Your task to perform on an android device: refresh tabs in the chrome app Image 0: 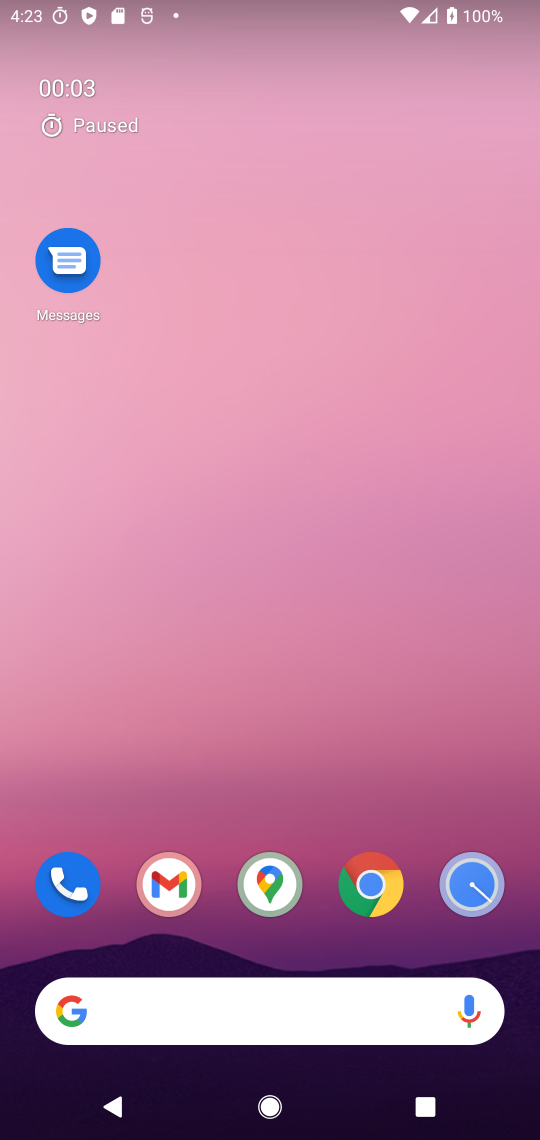
Step 0: click (364, 912)
Your task to perform on an android device: refresh tabs in the chrome app Image 1: 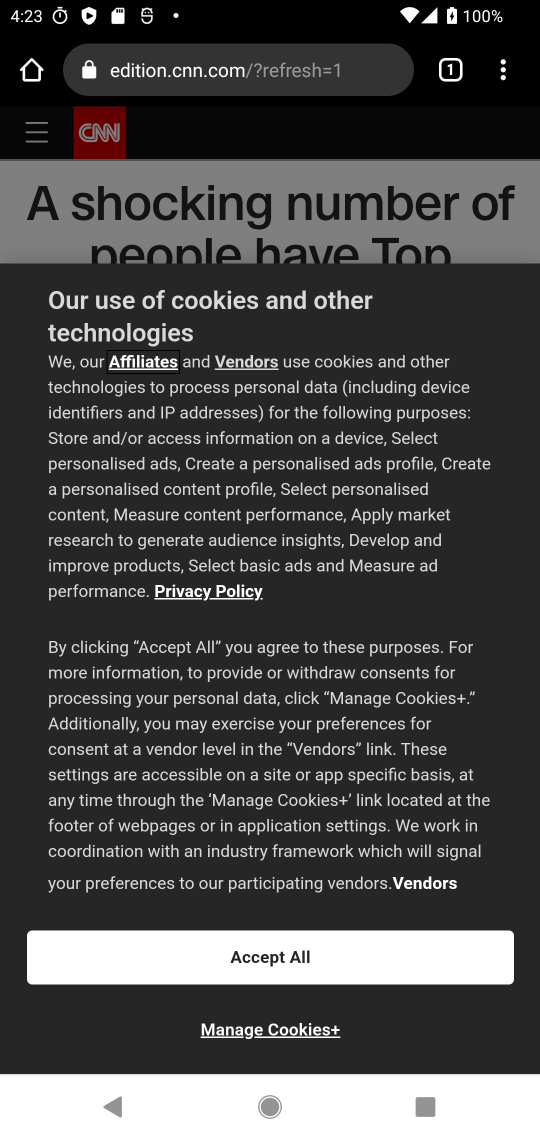
Step 1: click (503, 73)
Your task to perform on an android device: refresh tabs in the chrome app Image 2: 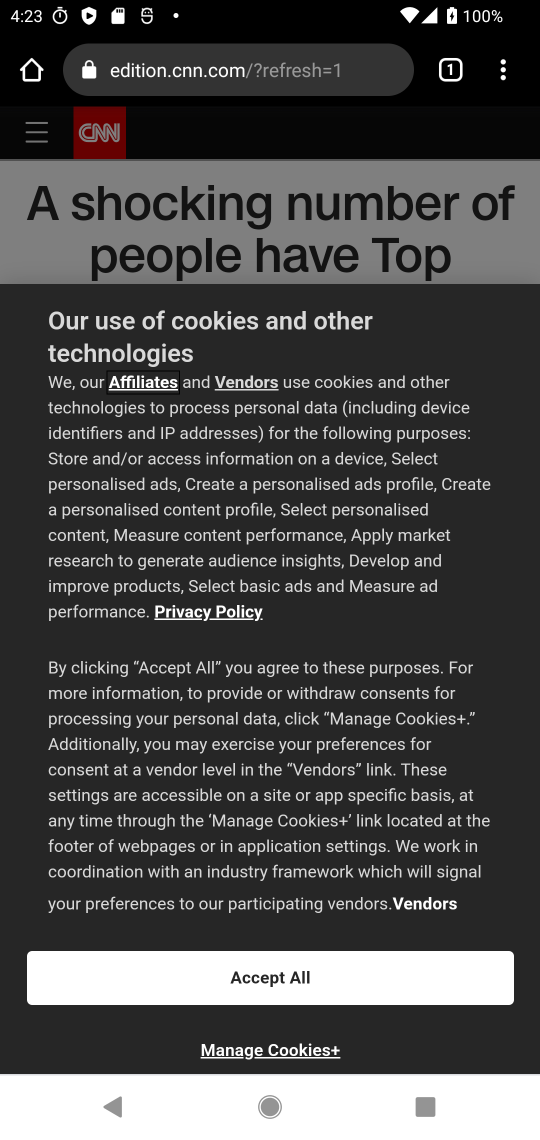
Step 2: click (506, 67)
Your task to perform on an android device: refresh tabs in the chrome app Image 3: 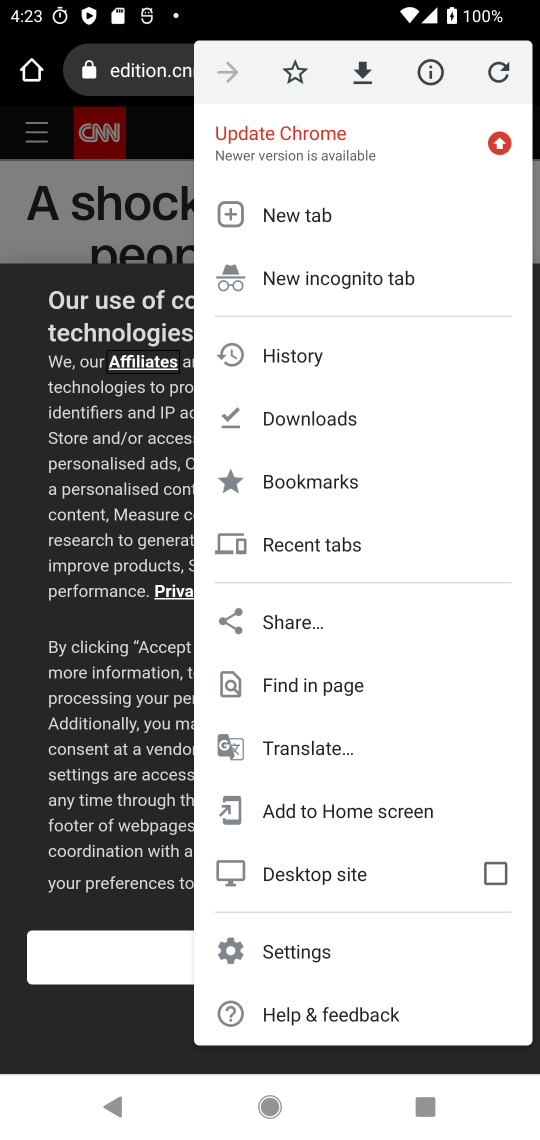
Step 3: click (491, 72)
Your task to perform on an android device: refresh tabs in the chrome app Image 4: 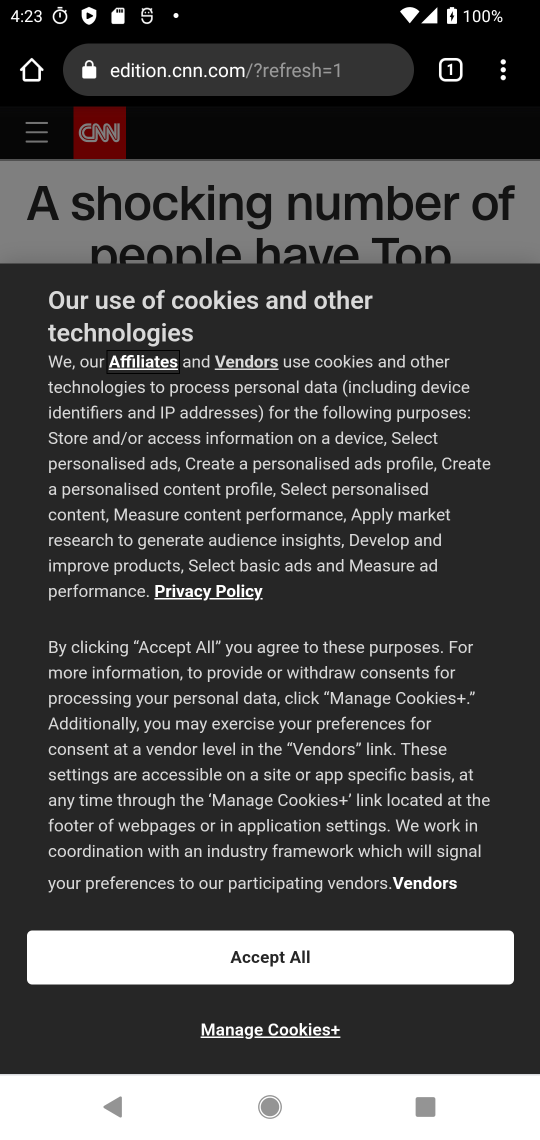
Step 4: task complete